Your task to perform on an android device: Open Google Maps and go to "Timeline" Image 0: 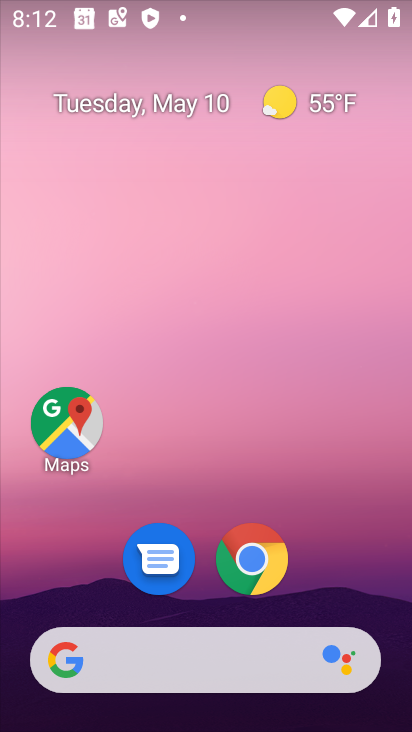
Step 0: drag from (191, 726) to (172, 163)
Your task to perform on an android device: Open Google Maps and go to "Timeline" Image 1: 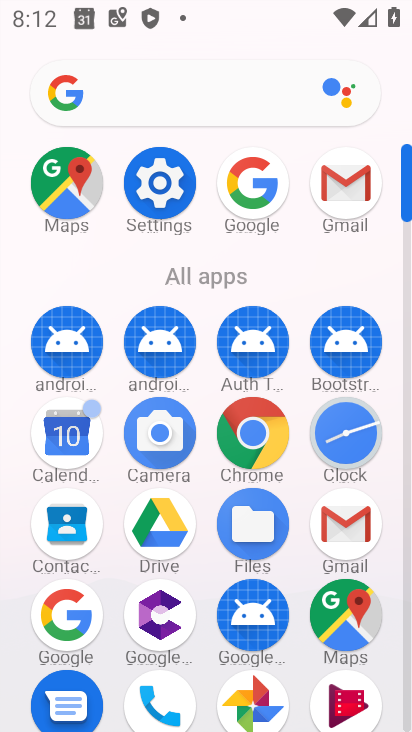
Step 1: click (334, 605)
Your task to perform on an android device: Open Google Maps and go to "Timeline" Image 2: 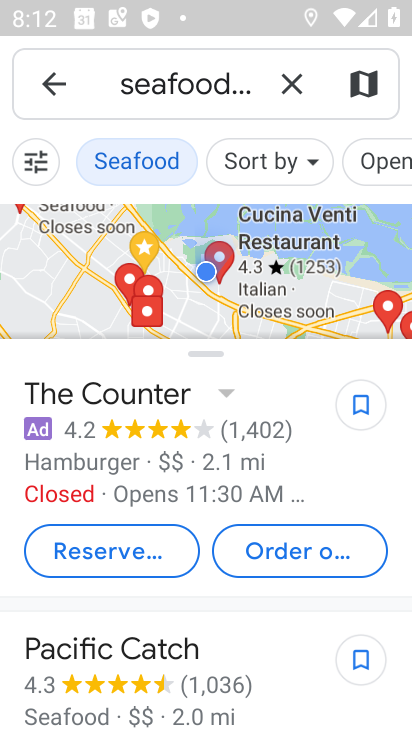
Step 2: click (43, 84)
Your task to perform on an android device: Open Google Maps and go to "Timeline" Image 3: 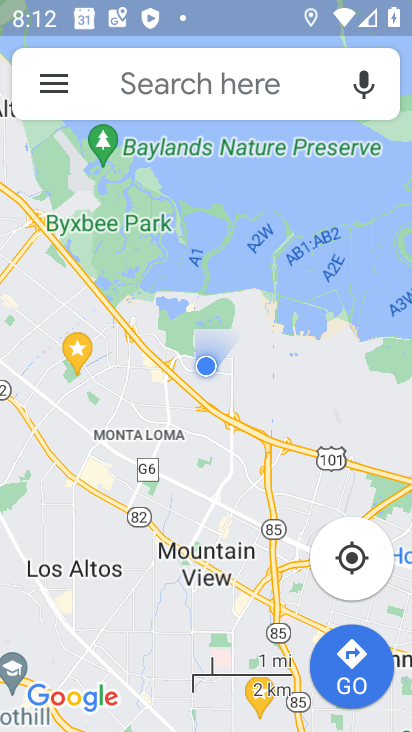
Step 3: click (51, 75)
Your task to perform on an android device: Open Google Maps and go to "Timeline" Image 4: 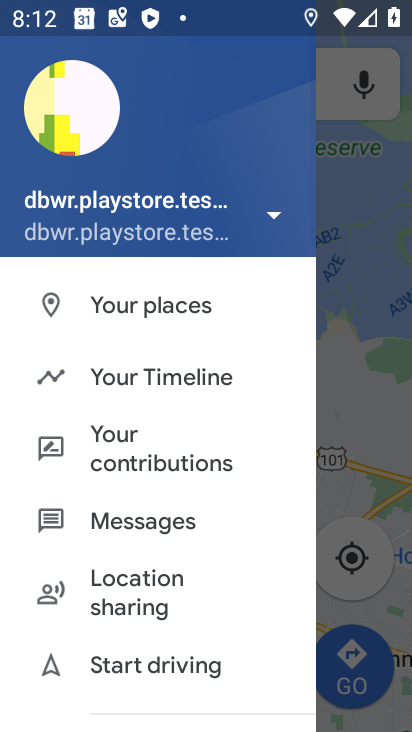
Step 4: click (176, 374)
Your task to perform on an android device: Open Google Maps and go to "Timeline" Image 5: 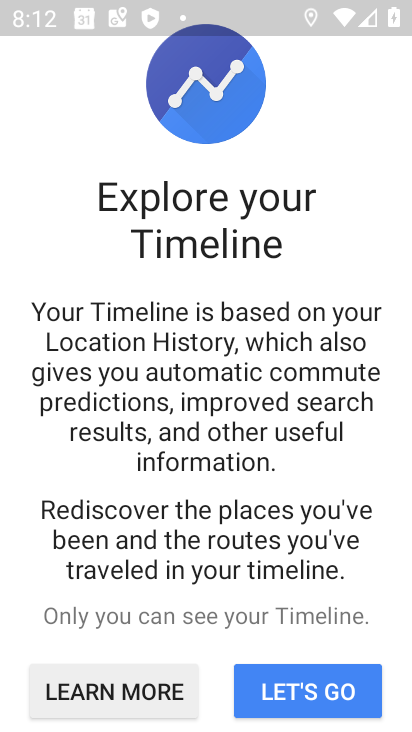
Step 5: click (322, 691)
Your task to perform on an android device: Open Google Maps and go to "Timeline" Image 6: 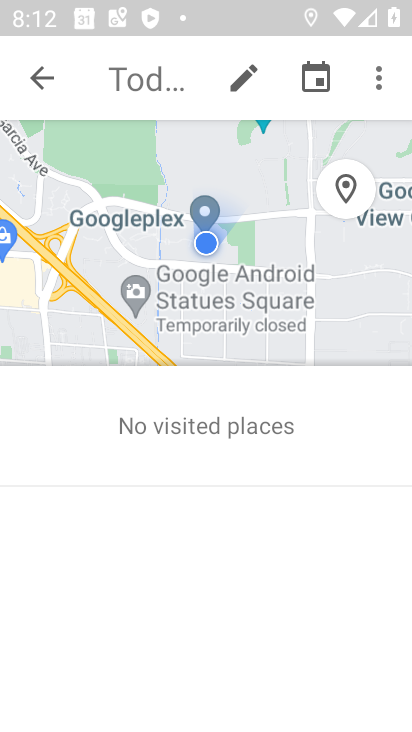
Step 6: task complete